Your task to perform on an android device: Show me recent news Image 0: 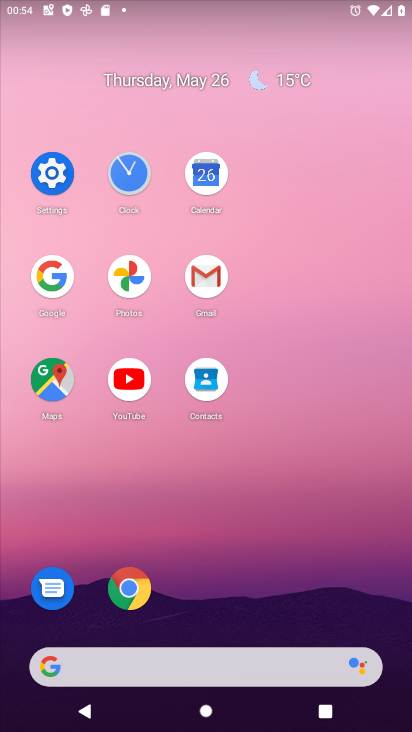
Step 0: click (64, 278)
Your task to perform on an android device: Show me recent news Image 1: 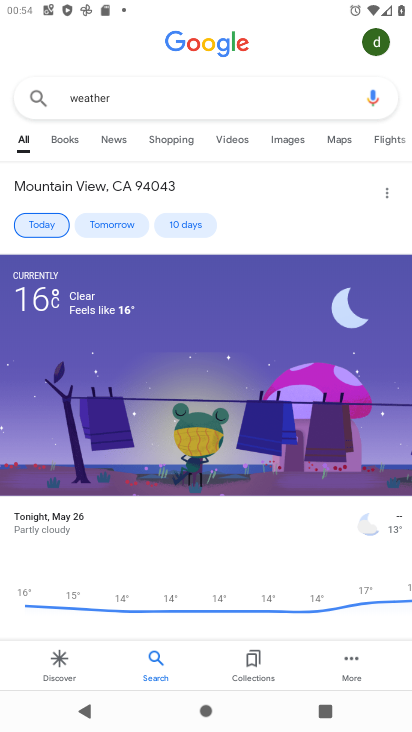
Step 1: click (168, 102)
Your task to perform on an android device: Show me recent news Image 2: 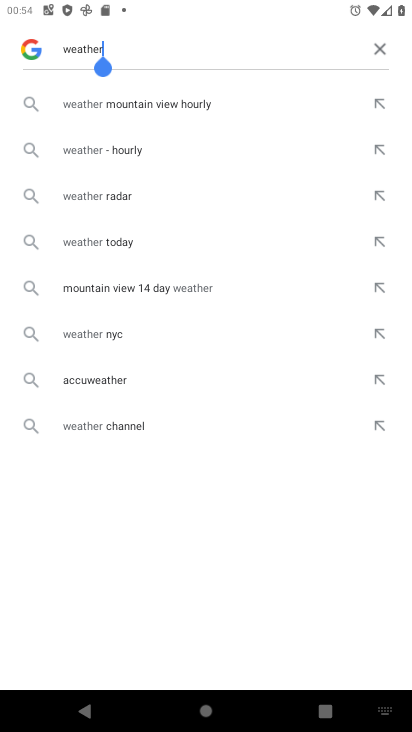
Step 2: click (390, 46)
Your task to perform on an android device: Show me recent news Image 3: 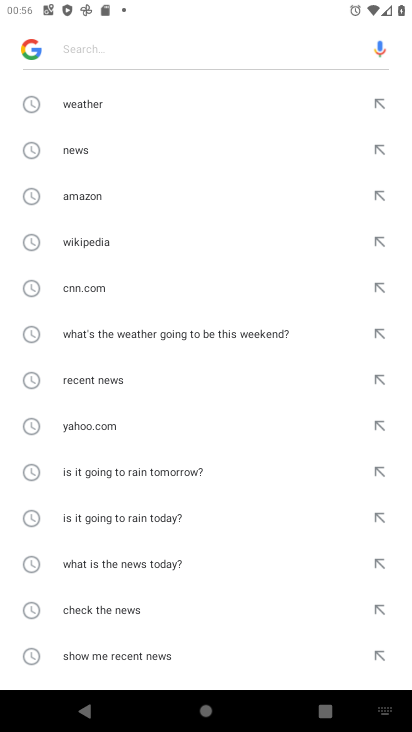
Step 3: press back button
Your task to perform on an android device: Show me recent news Image 4: 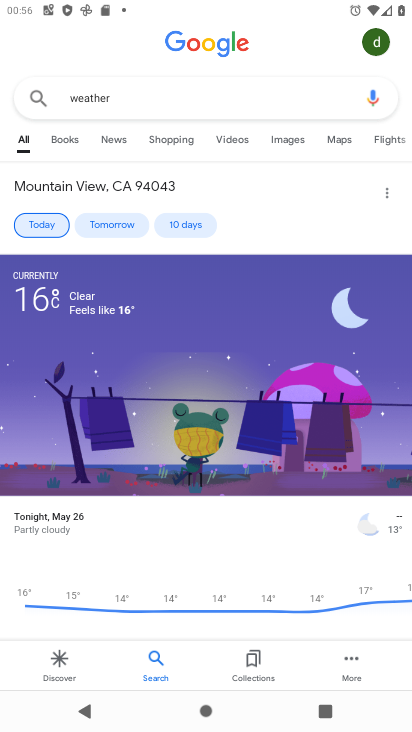
Step 4: click (208, 95)
Your task to perform on an android device: Show me recent news Image 5: 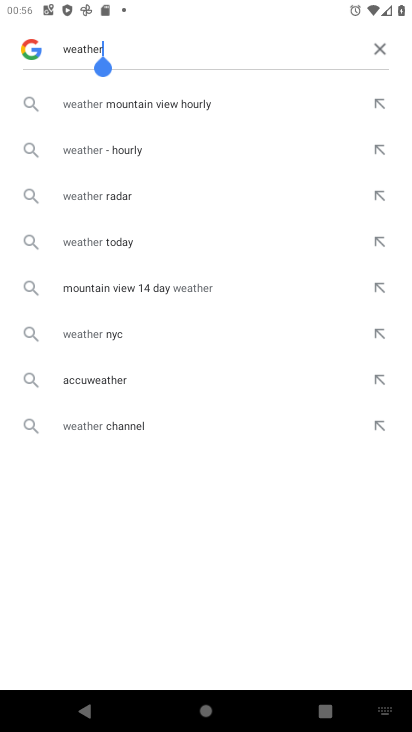
Step 5: click (381, 48)
Your task to perform on an android device: Show me recent news Image 6: 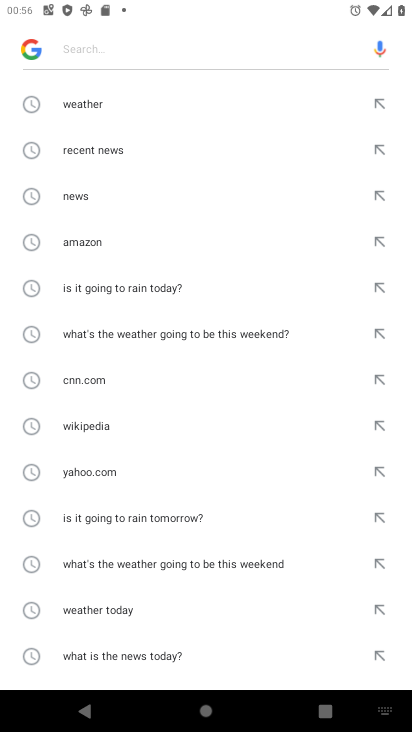
Step 6: click (94, 153)
Your task to perform on an android device: Show me recent news Image 7: 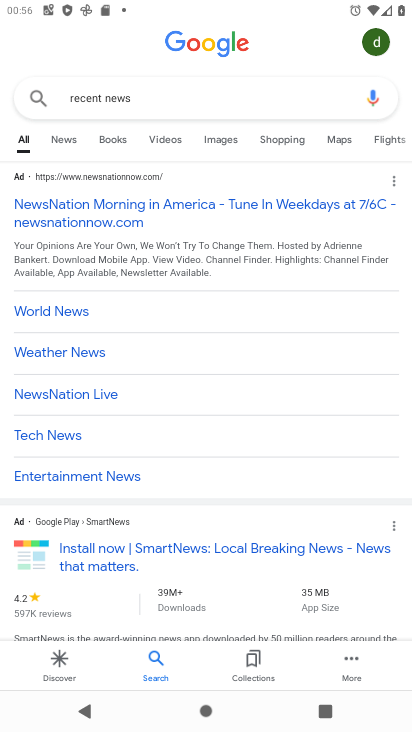
Step 7: task complete